Your task to perform on an android device: Search for runner rugs on Crate & Barrel Image 0: 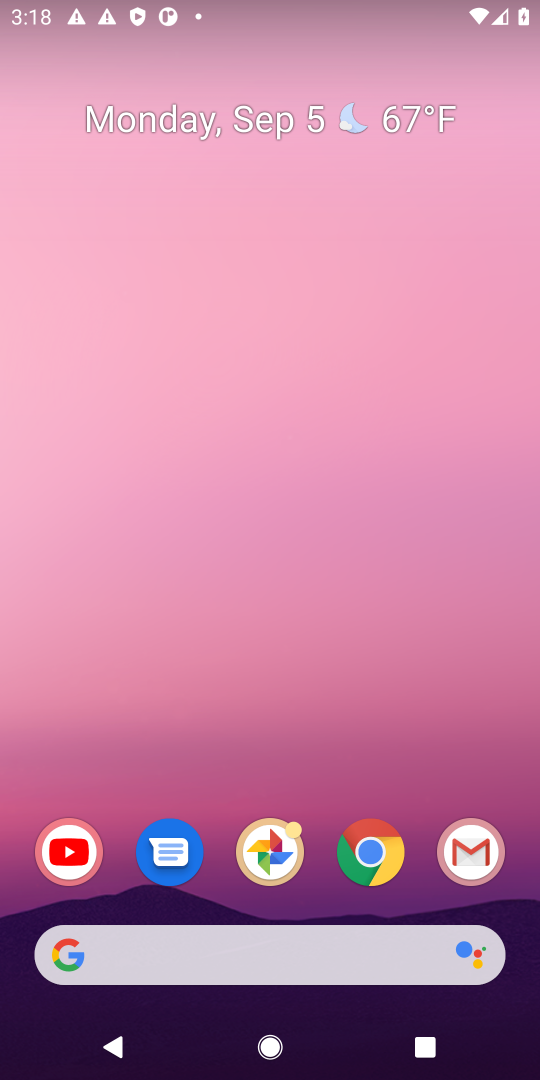
Step 0: click (365, 850)
Your task to perform on an android device: Search for runner rugs on Crate & Barrel Image 1: 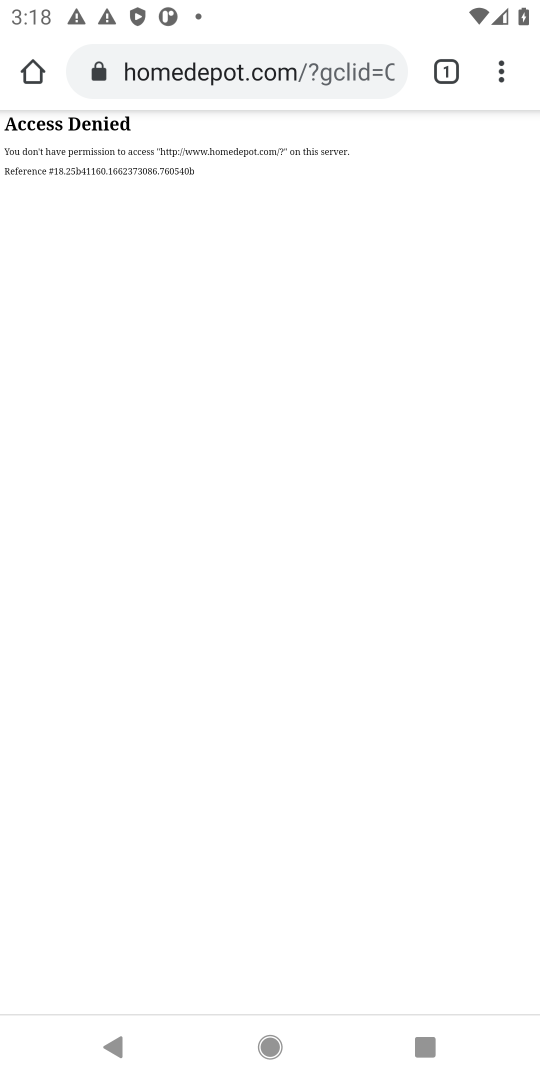
Step 1: click (274, 49)
Your task to perform on an android device: Search for runner rugs on Crate & Barrel Image 2: 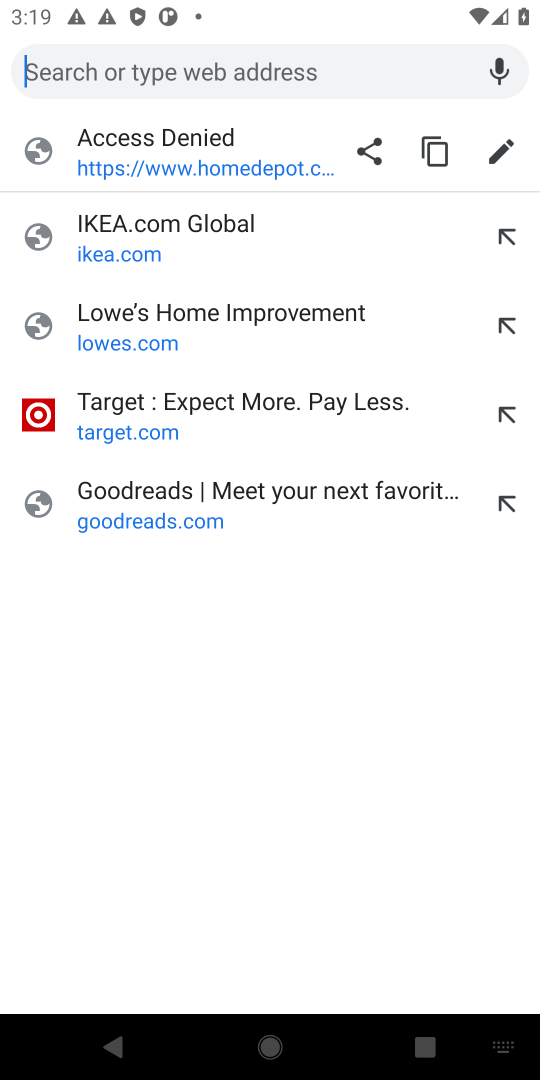
Step 2: type "Crate & Barrel"
Your task to perform on an android device: Search for runner rugs on Crate & Barrel Image 3: 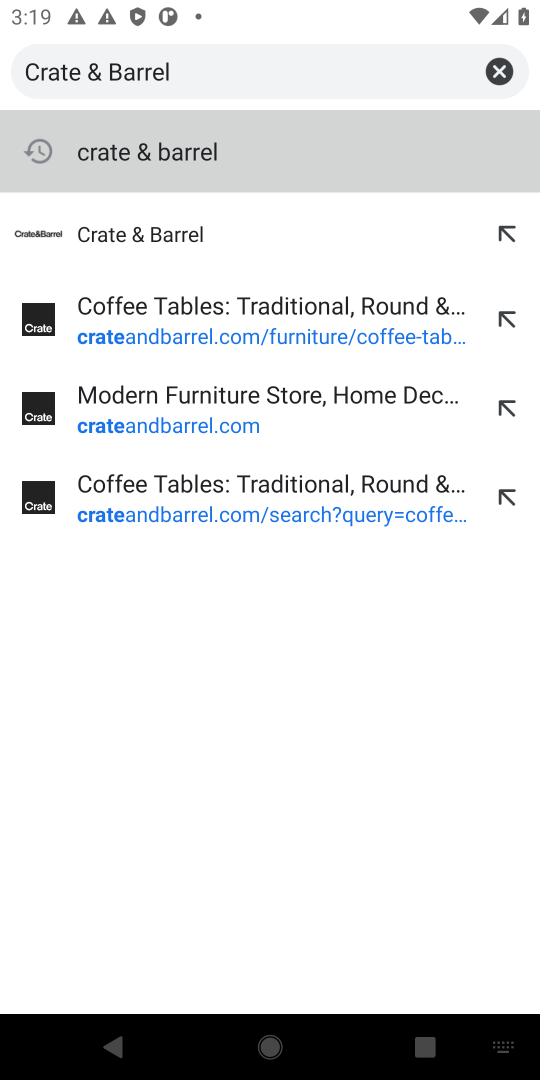
Step 3: click (140, 227)
Your task to perform on an android device: Search for runner rugs on Crate & Barrel Image 4: 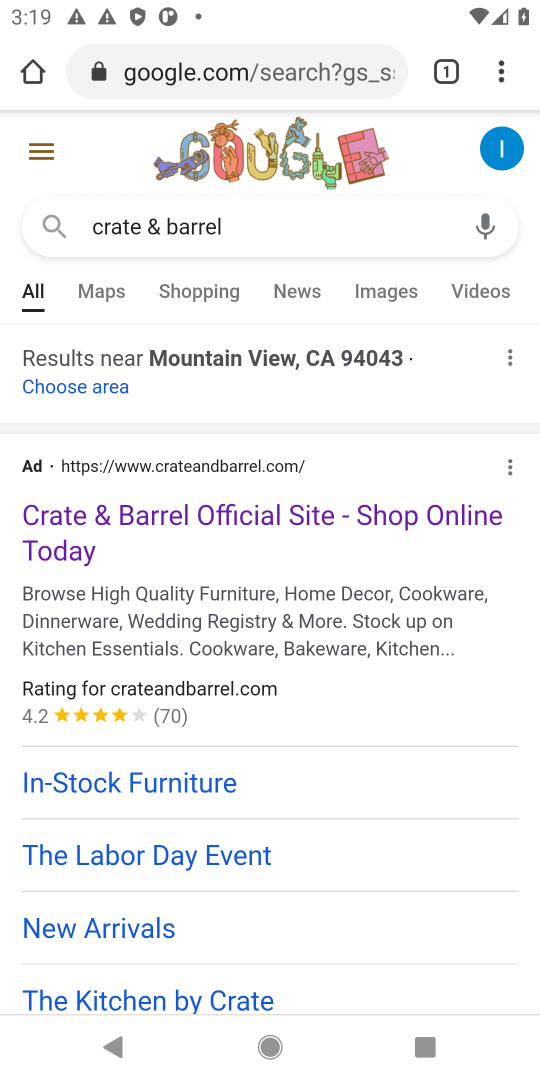
Step 4: click (115, 521)
Your task to perform on an android device: Search for runner rugs on Crate & Barrel Image 5: 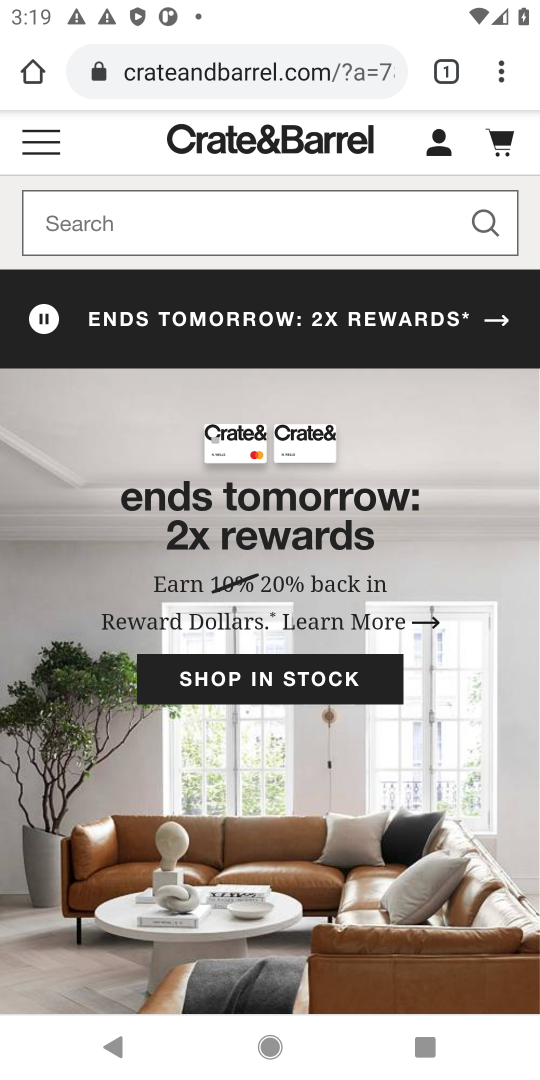
Step 5: click (106, 209)
Your task to perform on an android device: Search for runner rugs on Crate & Barrel Image 6: 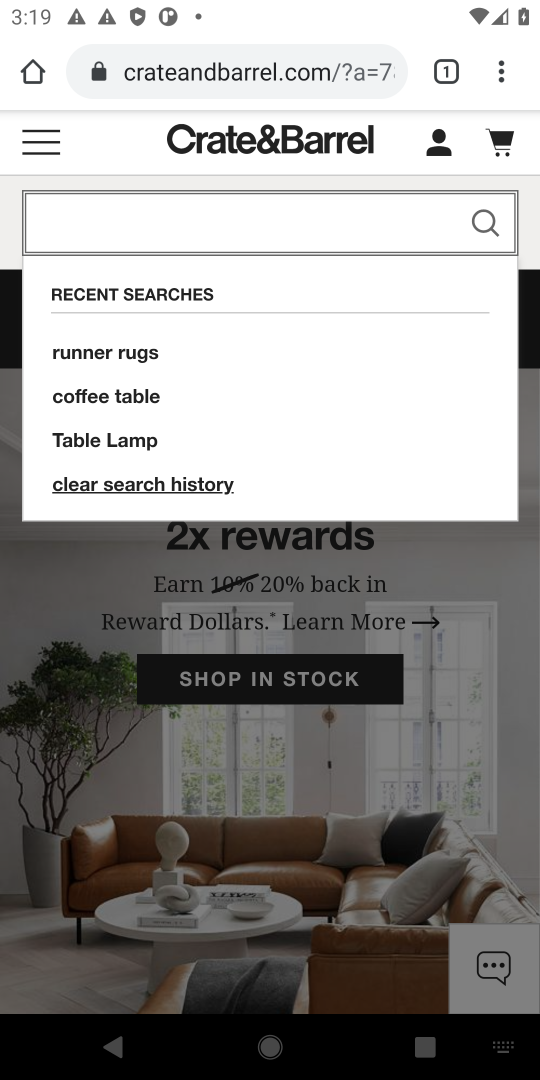
Step 6: click (94, 343)
Your task to perform on an android device: Search for runner rugs on Crate & Barrel Image 7: 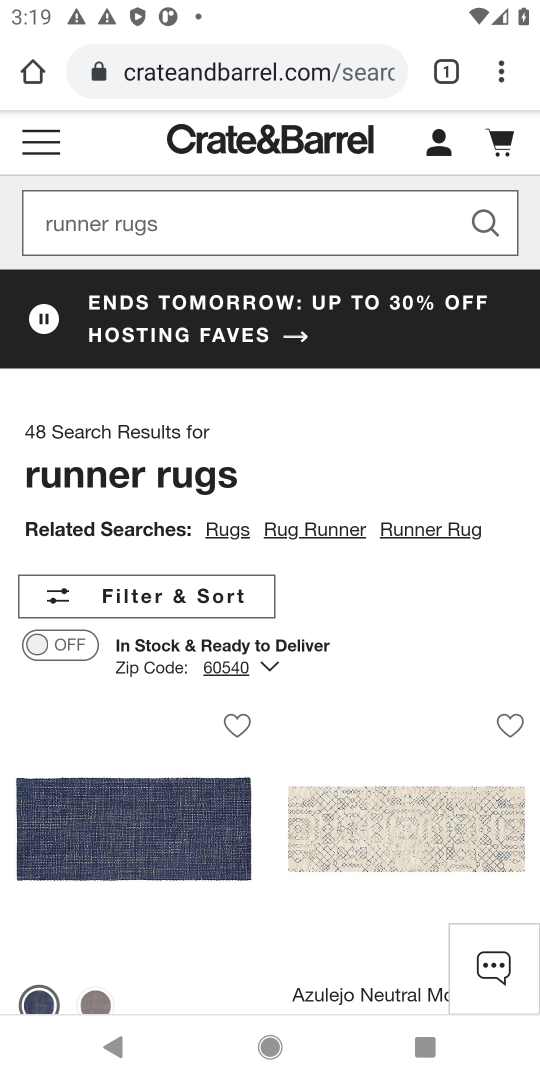
Step 7: click (483, 212)
Your task to perform on an android device: Search for runner rugs on Crate & Barrel Image 8: 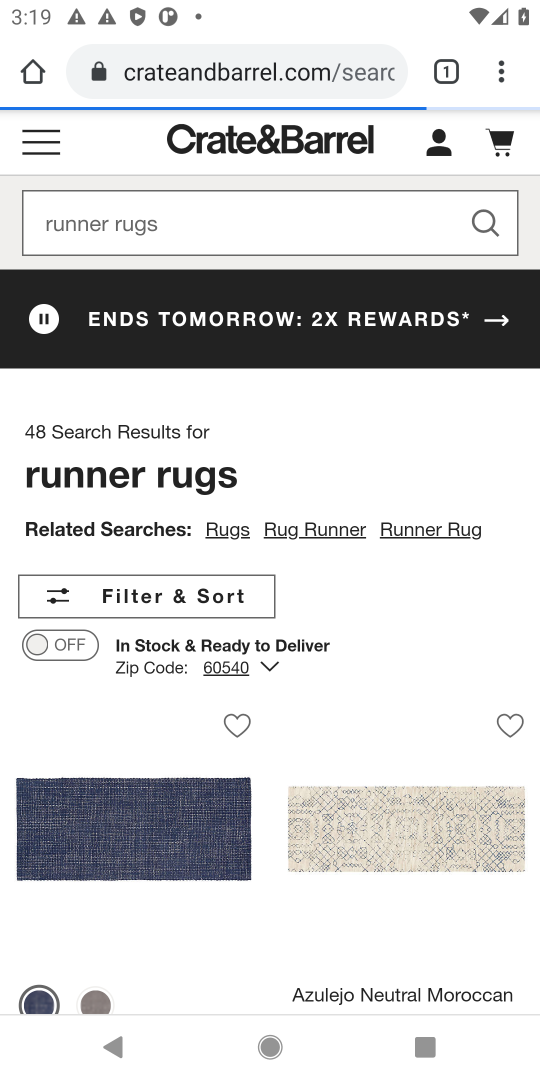
Step 8: task complete